Your task to perform on an android device: change the clock display to show seconds Image 0: 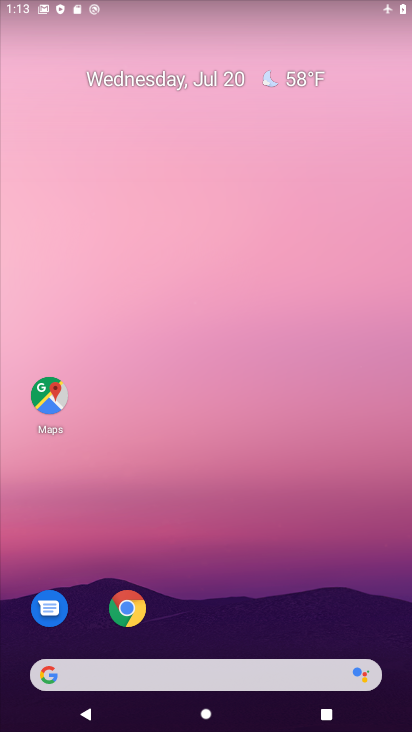
Step 0: drag from (257, 704) to (257, 212)
Your task to perform on an android device: change the clock display to show seconds Image 1: 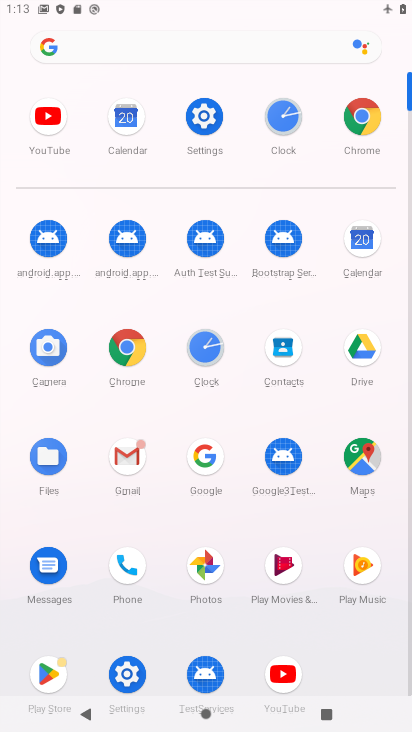
Step 1: click (209, 351)
Your task to perform on an android device: change the clock display to show seconds Image 2: 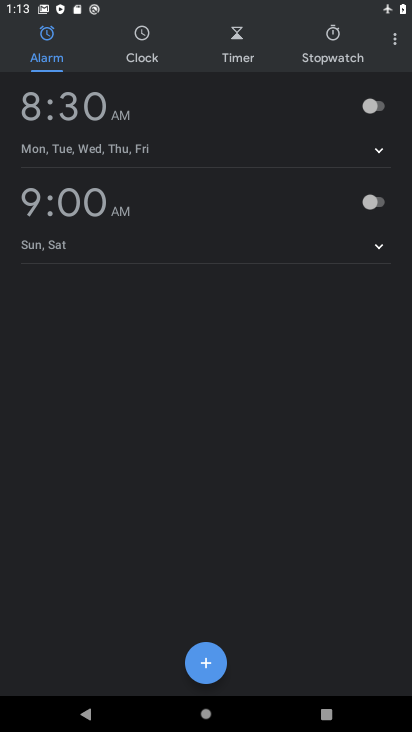
Step 2: click (398, 41)
Your task to perform on an android device: change the clock display to show seconds Image 3: 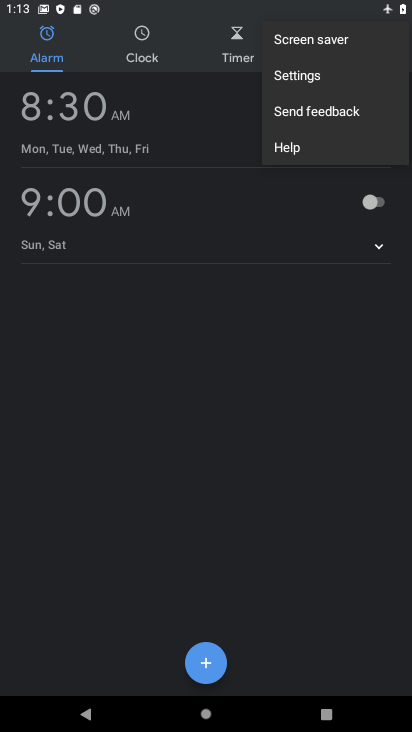
Step 3: click (298, 77)
Your task to perform on an android device: change the clock display to show seconds Image 4: 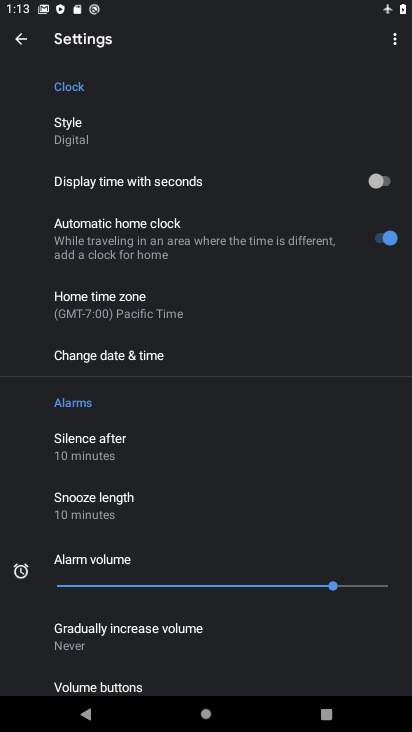
Step 4: click (394, 180)
Your task to perform on an android device: change the clock display to show seconds Image 5: 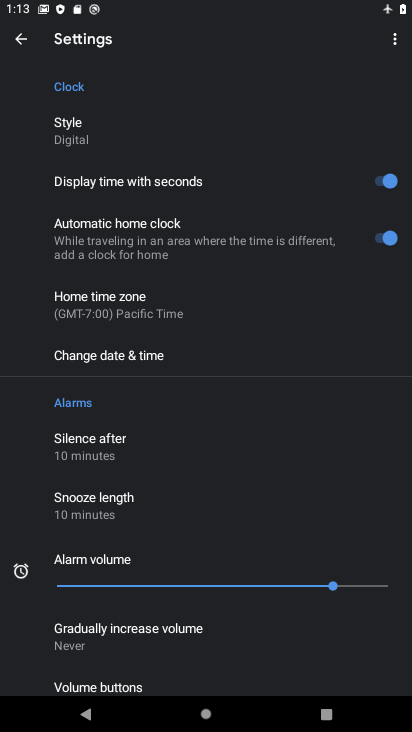
Step 5: task complete